Your task to perform on an android device: toggle priority inbox in the gmail app Image 0: 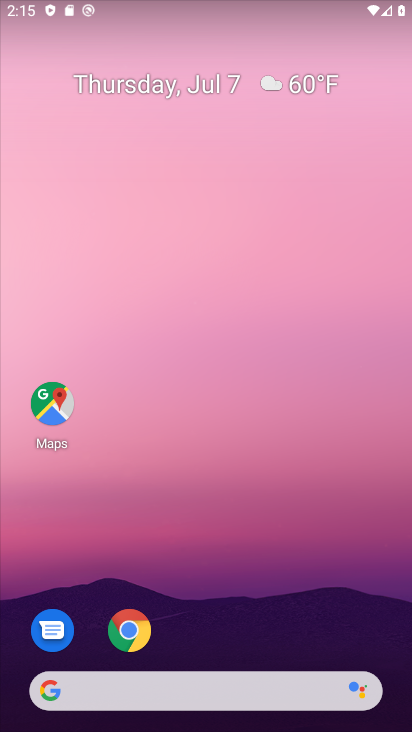
Step 0: drag from (273, 696) to (124, 314)
Your task to perform on an android device: toggle priority inbox in the gmail app Image 1: 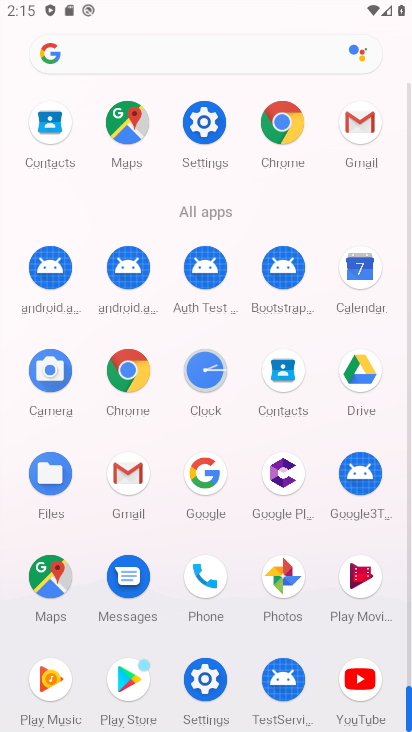
Step 1: click (131, 464)
Your task to perform on an android device: toggle priority inbox in the gmail app Image 2: 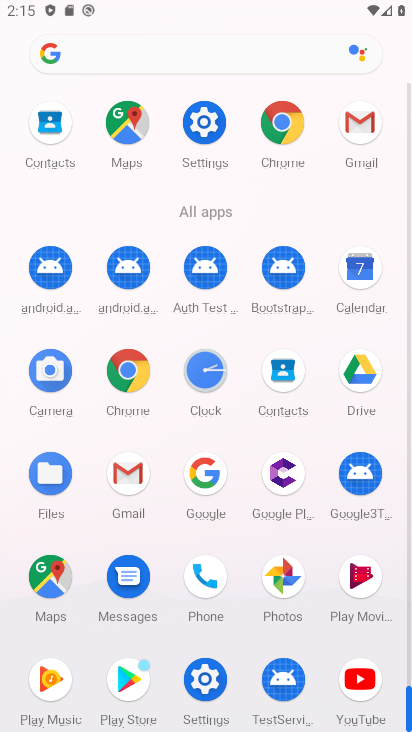
Step 2: click (129, 466)
Your task to perform on an android device: toggle priority inbox in the gmail app Image 3: 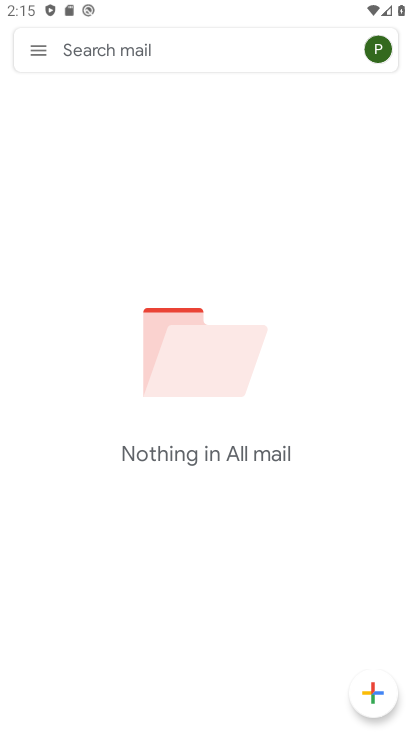
Step 3: click (30, 50)
Your task to perform on an android device: toggle priority inbox in the gmail app Image 4: 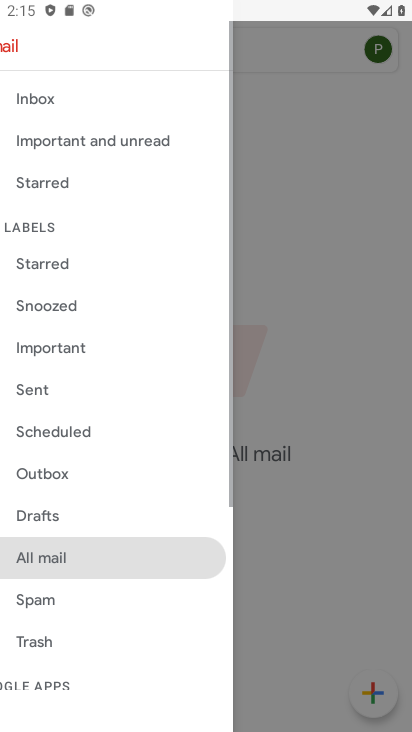
Step 4: click (32, 52)
Your task to perform on an android device: toggle priority inbox in the gmail app Image 5: 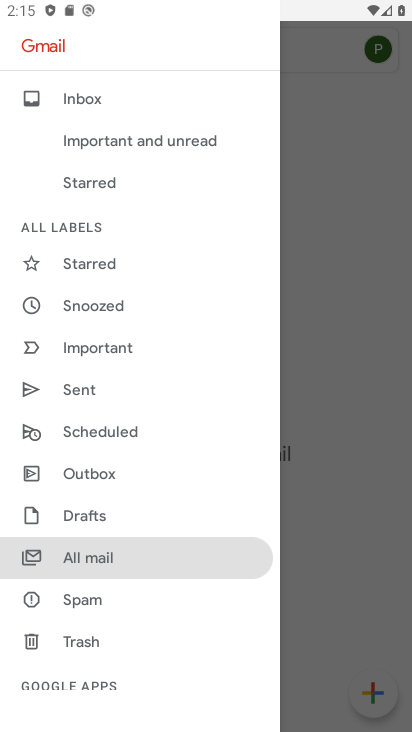
Step 5: drag from (85, 625) to (91, 248)
Your task to perform on an android device: toggle priority inbox in the gmail app Image 6: 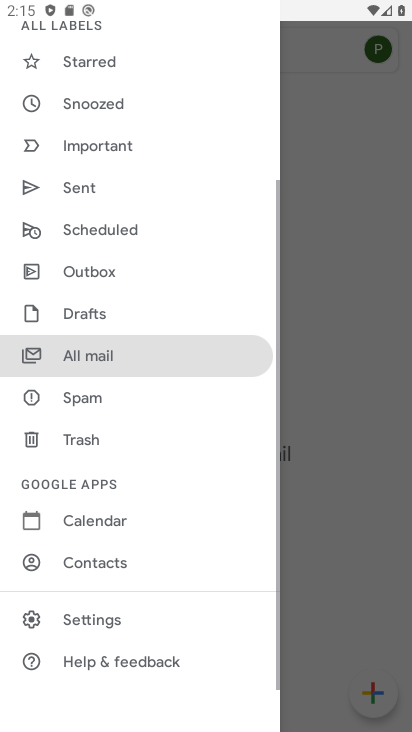
Step 6: drag from (122, 502) to (135, 97)
Your task to perform on an android device: toggle priority inbox in the gmail app Image 7: 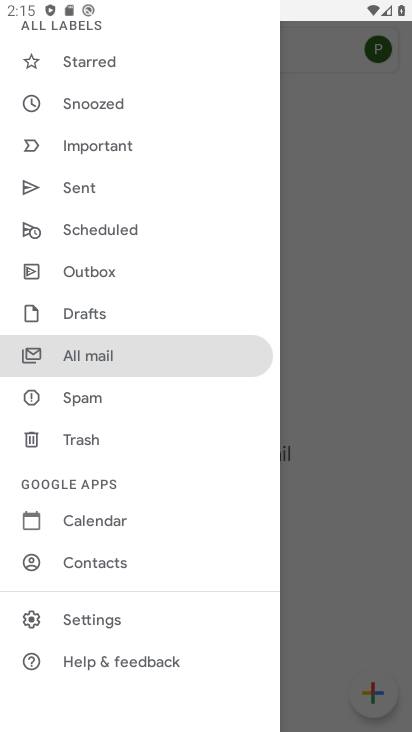
Step 7: click (106, 605)
Your task to perform on an android device: toggle priority inbox in the gmail app Image 8: 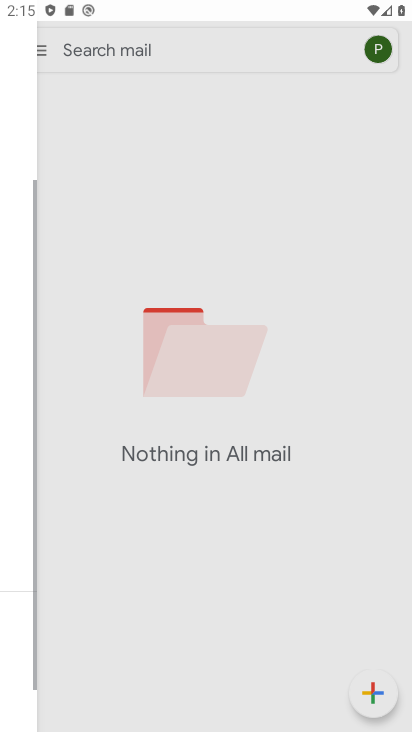
Step 8: click (114, 603)
Your task to perform on an android device: toggle priority inbox in the gmail app Image 9: 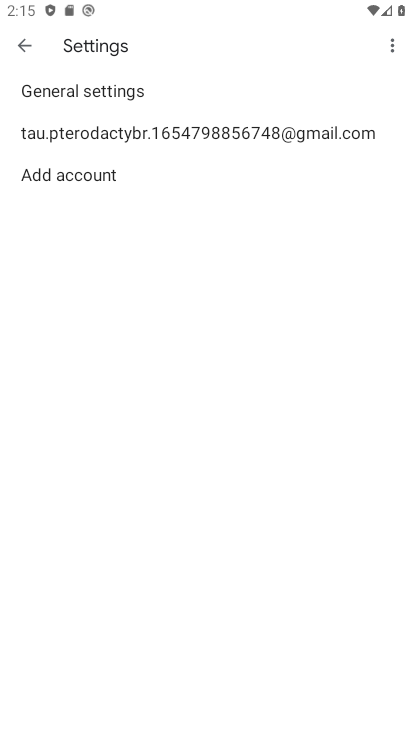
Step 9: click (170, 129)
Your task to perform on an android device: toggle priority inbox in the gmail app Image 10: 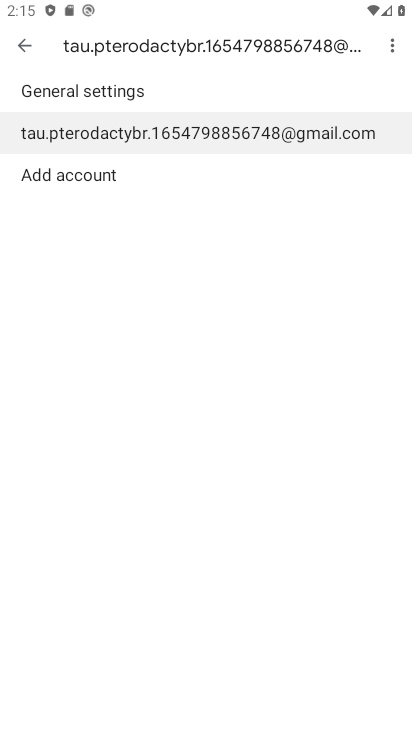
Step 10: click (169, 129)
Your task to perform on an android device: toggle priority inbox in the gmail app Image 11: 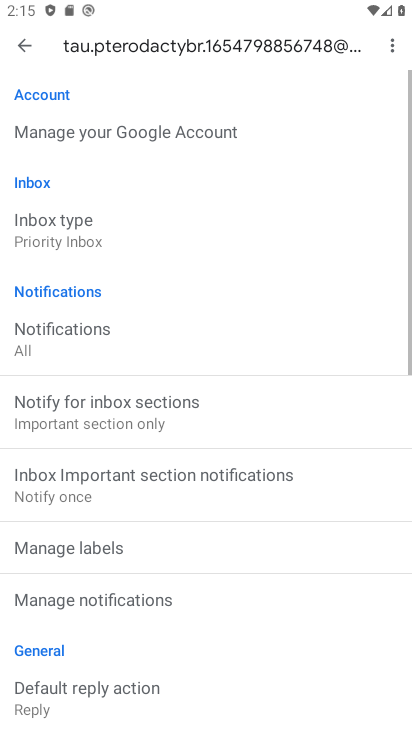
Step 11: click (177, 128)
Your task to perform on an android device: toggle priority inbox in the gmail app Image 12: 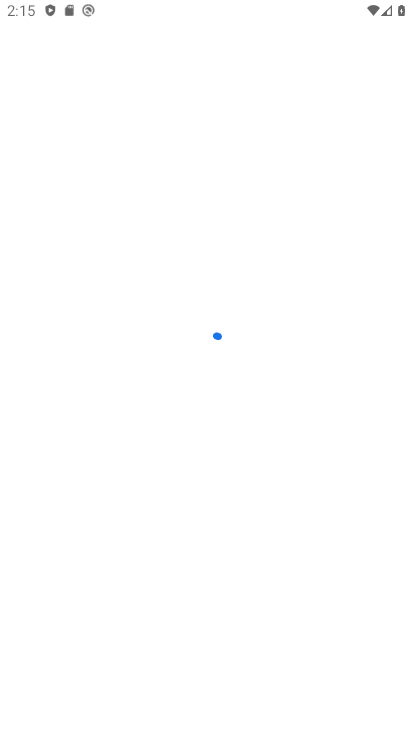
Step 12: press back button
Your task to perform on an android device: toggle priority inbox in the gmail app Image 13: 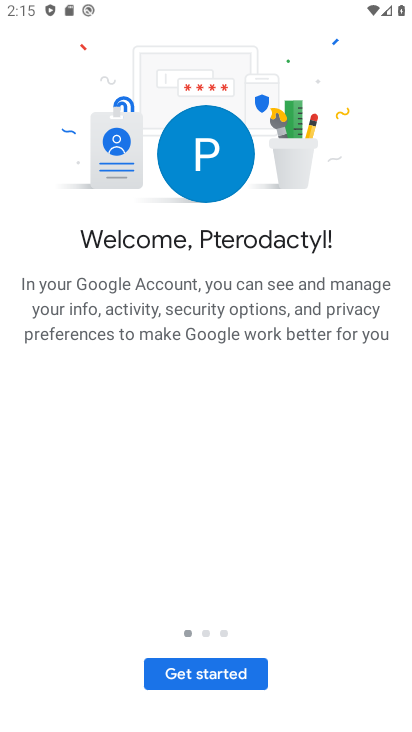
Step 13: press back button
Your task to perform on an android device: toggle priority inbox in the gmail app Image 14: 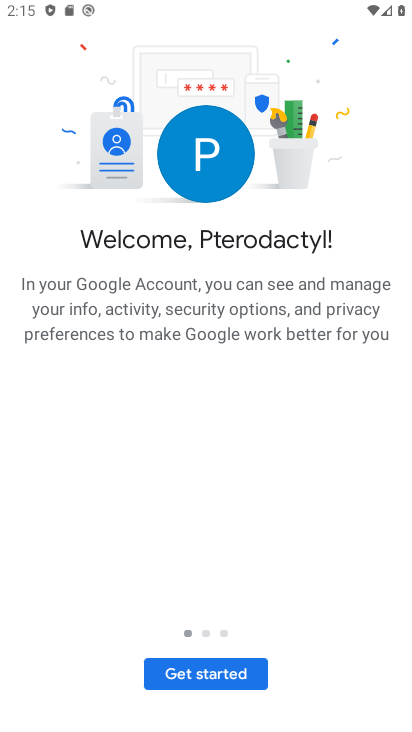
Step 14: press back button
Your task to perform on an android device: toggle priority inbox in the gmail app Image 15: 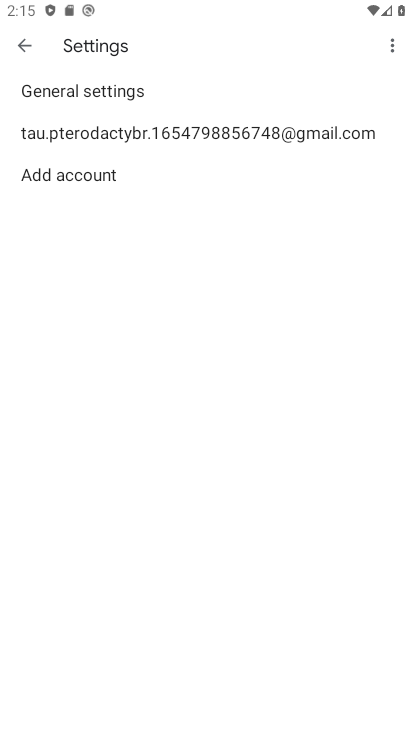
Step 15: click (78, 126)
Your task to perform on an android device: toggle priority inbox in the gmail app Image 16: 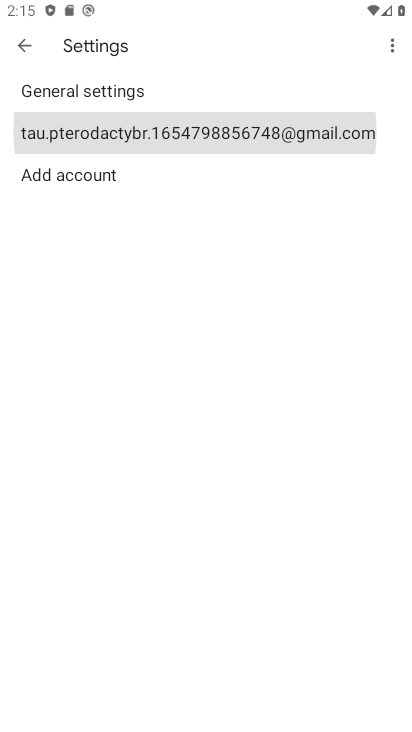
Step 16: click (79, 127)
Your task to perform on an android device: toggle priority inbox in the gmail app Image 17: 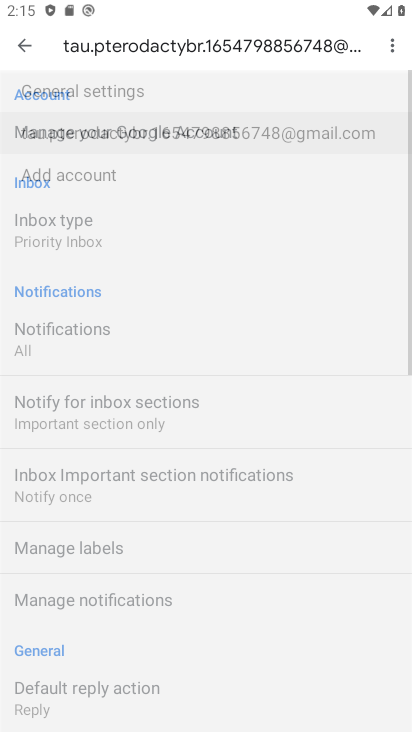
Step 17: click (80, 127)
Your task to perform on an android device: toggle priority inbox in the gmail app Image 18: 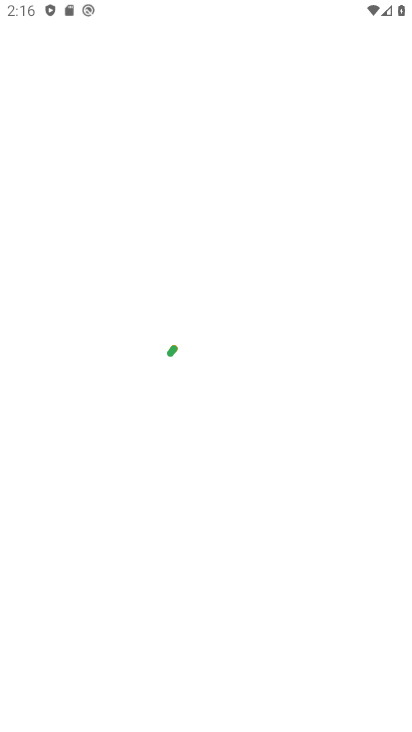
Step 18: press back button
Your task to perform on an android device: toggle priority inbox in the gmail app Image 19: 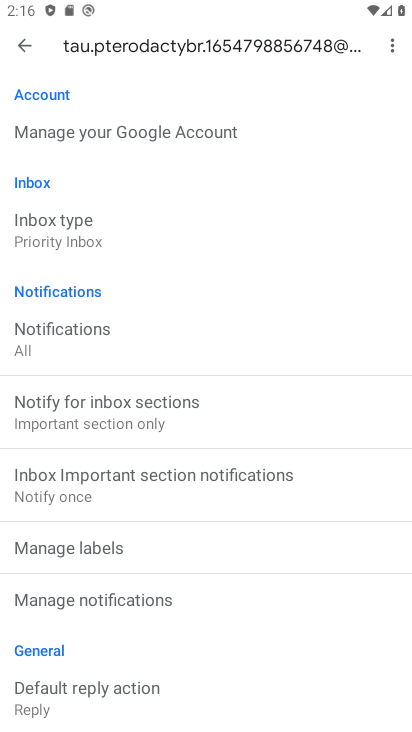
Step 19: click (43, 228)
Your task to perform on an android device: toggle priority inbox in the gmail app Image 20: 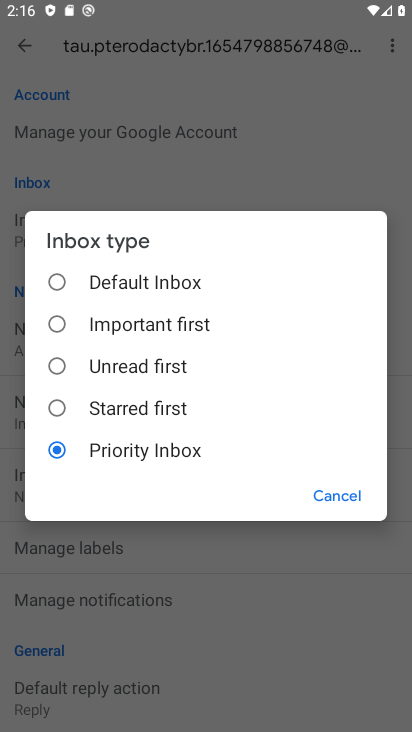
Step 20: click (62, 401)
Your task to perform on an android device: toggle priority inbox in the gmail app Image 21: 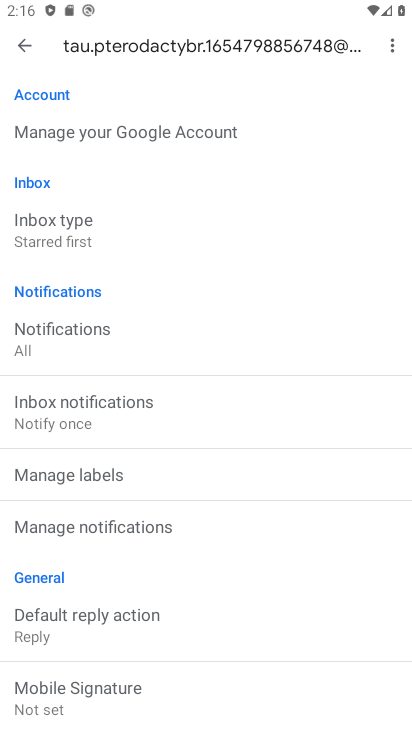
Step 21: task complete